Your task to perform on an android device: make emails show in primary in the gmail app Image 0: 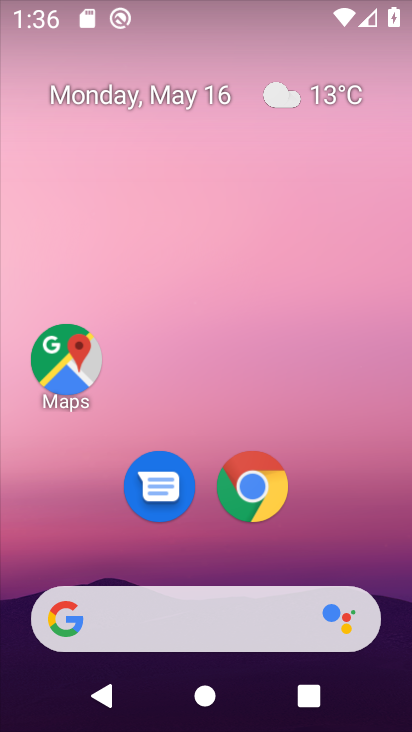
Step 0: drag from (356, 568) to (357, 0)
Your task to perform on an android device: make emails show in primary in the gmail app Image 1: 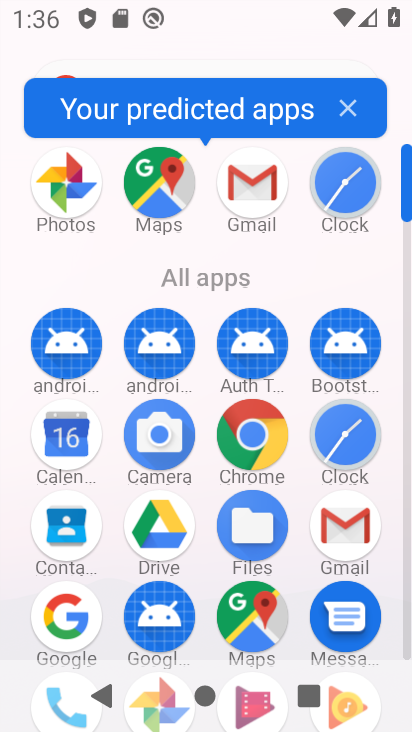
Step 1: click (256, 201)
Your task to perform on an android device: make emails show in primary in the gmail app Image 2: 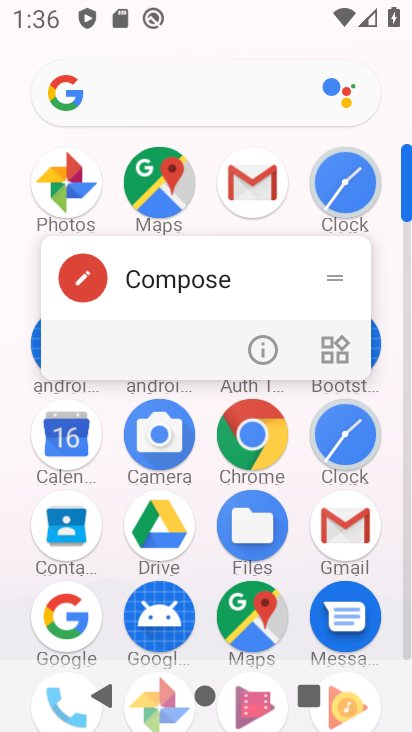
Step 2: click (256, 200)
Your task to perform on an android device: make emails show in primary in the gmail app Image 3: 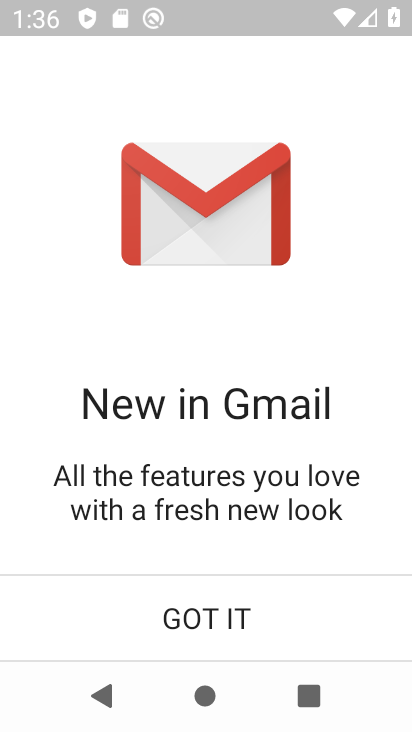
Step 3: click (237, 603)
Your task to perform on an android device: make emails show in primary in the gmail app Image 4: 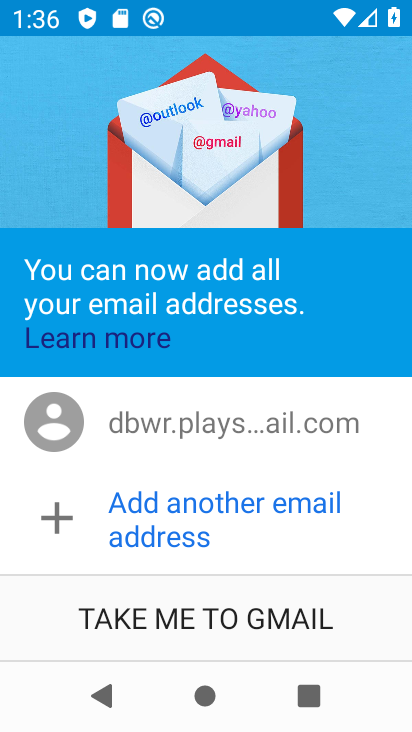
Step 4: click (201, 635)
Your task to perform on an android device: make emails show in primary in the gmail app Image 5: 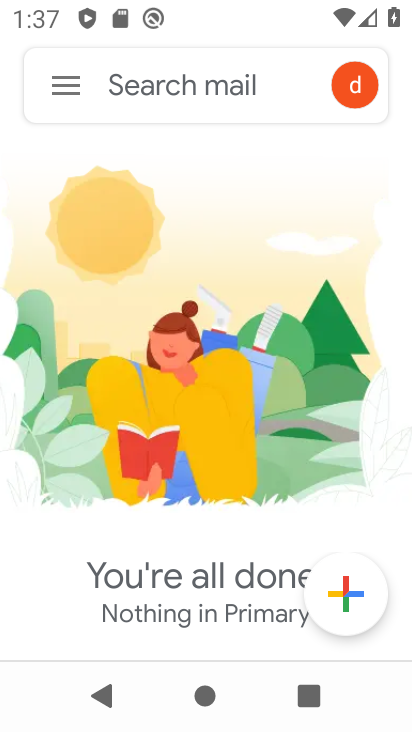
Step 5: click (61, 93)
Your task to perform on an android device: make emails show in primary in the gmail app Image 6: 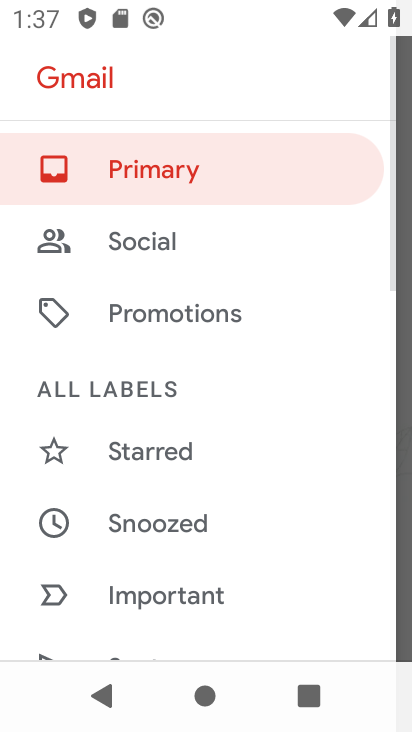
Step 6: drag from (123, 605) to (182, 113)
Your task to perform on an android device: make emails show in primary in the gmail app Image 7: 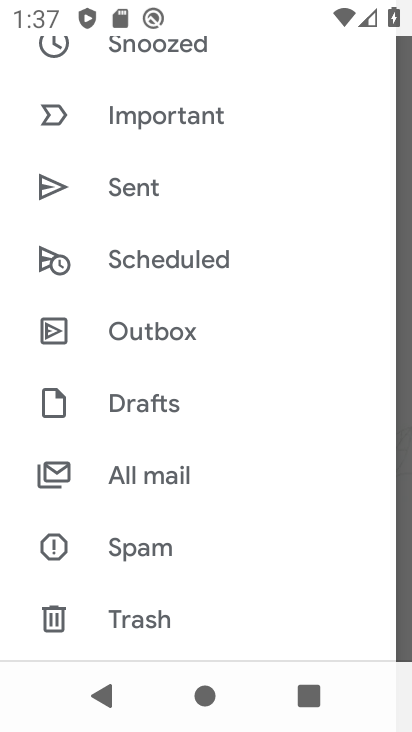
Step 7: drag from (158, 628) to (152, 230)
Your task to perform on an android device: make emails show in primary in the gmail app Image 8: 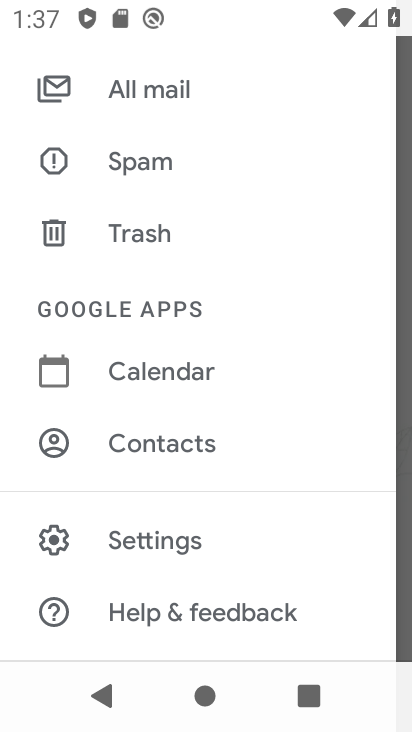
Step 8: click (171, 546)
Your task to perform on an android device: make emails show in primary in the gmail app Image 9: 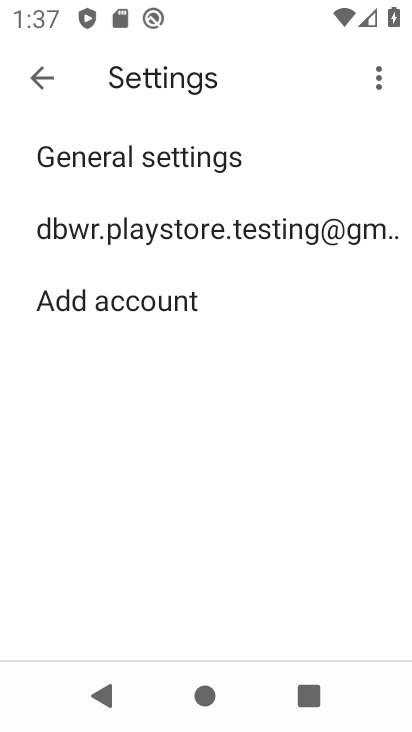
Step 9: click (190, 244)
Your task to perform on an android device: make emails show in primary in the gmail app Image 10: 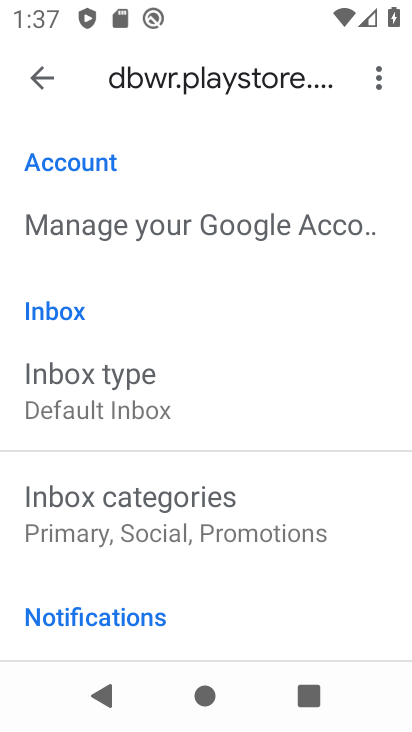
Step 10: click (101, 407)
Your task to perform on an android device: make emails show in primary in the gmail app Image 11: 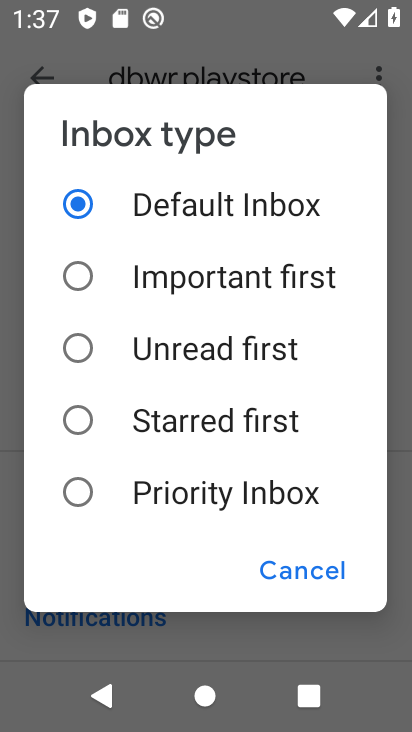
Step 11: task complete